Your task to perform on an android device: delete a single message in the gmail app Image 0: 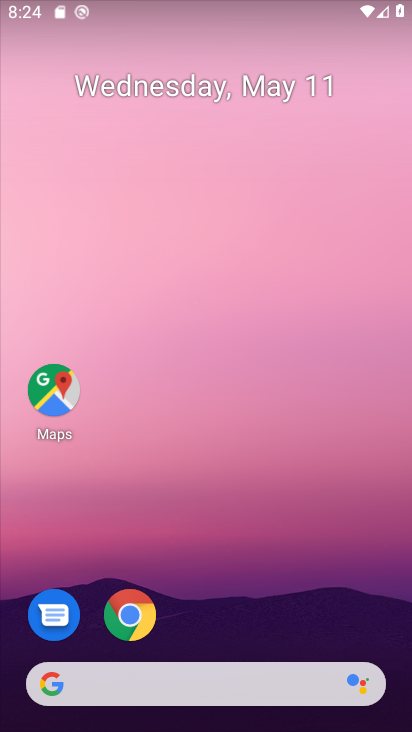
Step 0: drag from (316, 603) to (296, 181)
Your task to perform on an android device: delete a single message in the gmail app Image 1: 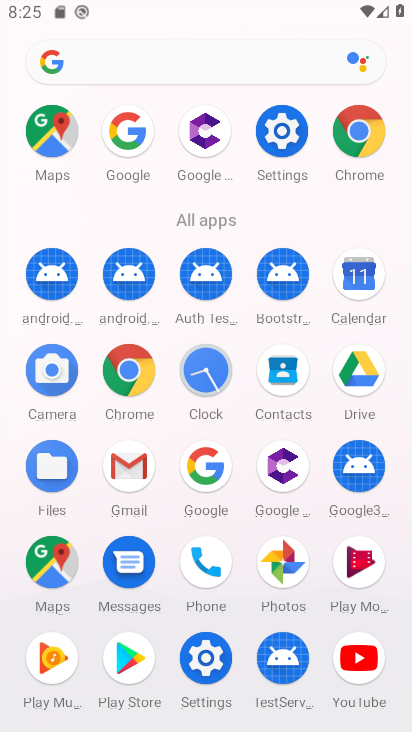
Step 1: click (147, 478)
Your task to perform on an android device: delete a single message in the gmail app Image 2: 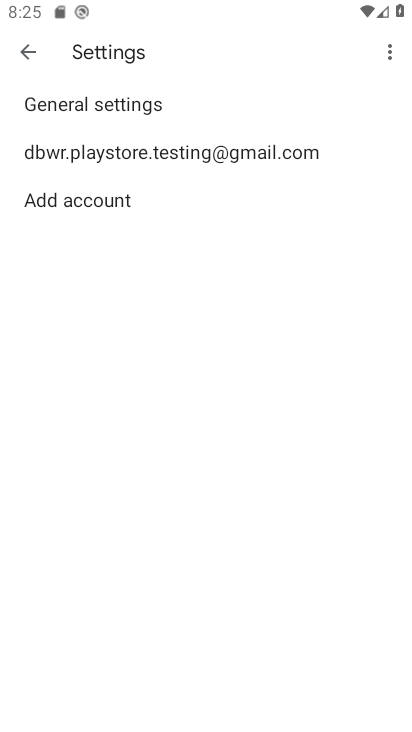
Step 2: click (81, 145)
Your task to perform on an android device: delete a single message in the gmail app Image 3: 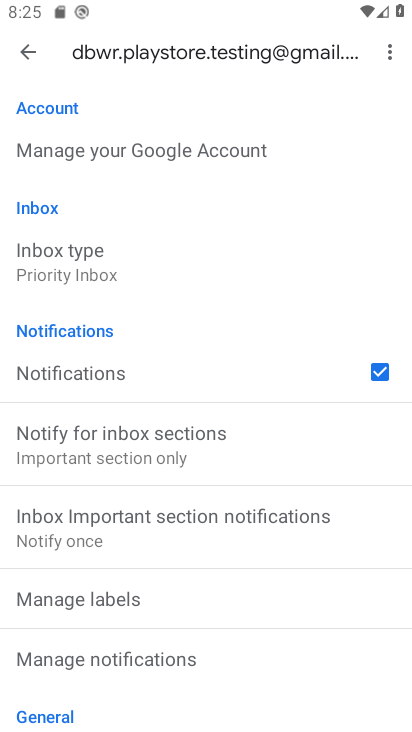
Step 3: click (18, 60)
Your task to perform on an android device: delete a single message in the gmail app Image 4: 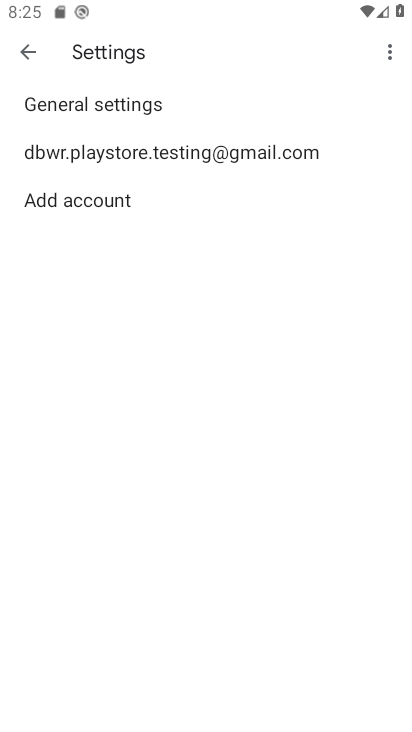
Step 4: click (13, 57)
Your task to perform on an android device: delete a single message in the gmail app Image 5: 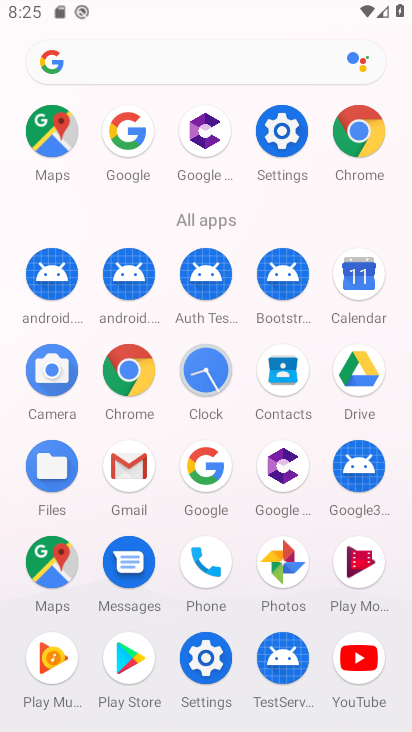
Step 5: click (127, 462)
Your task to perform on an android device: delete a single message in the gmail app Image 6: 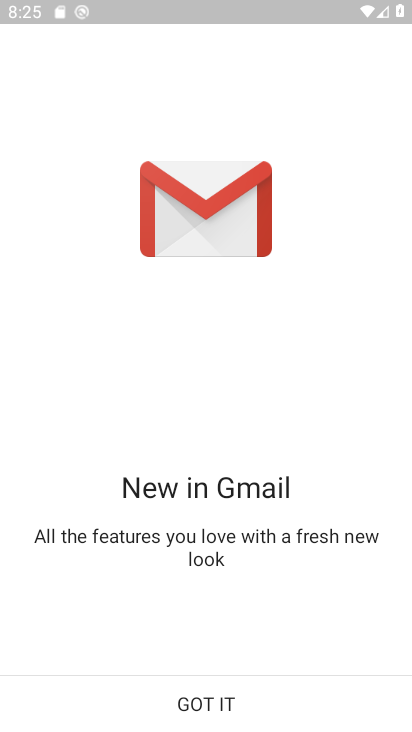
Step 6: click (191, 723)
Your task to perform on an android device: delete a single message in the gmail app Image 7: 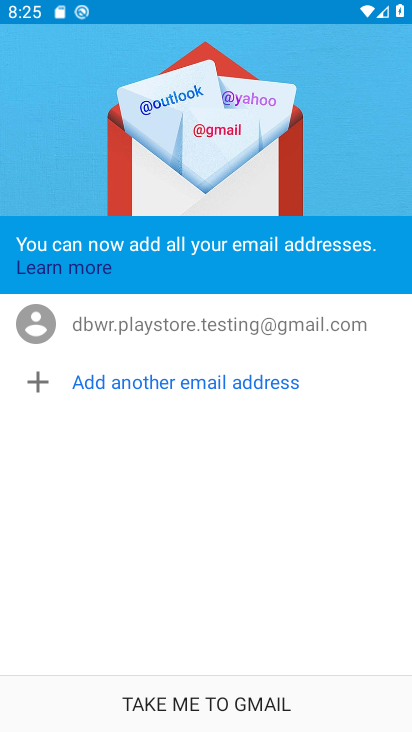
Step 7: click (209, 694)
Your task to perform on an android device: delete a single message in the gmail app Image 8: 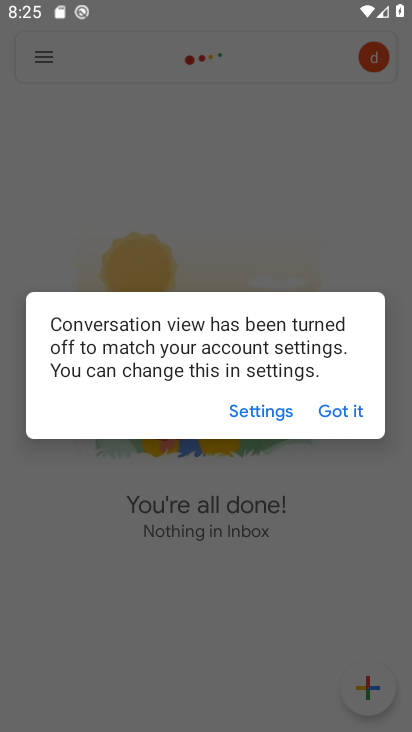
Step 8: click (330, 425)
Your task to perform on an android device: delete a single message in the gmail app Image 9: 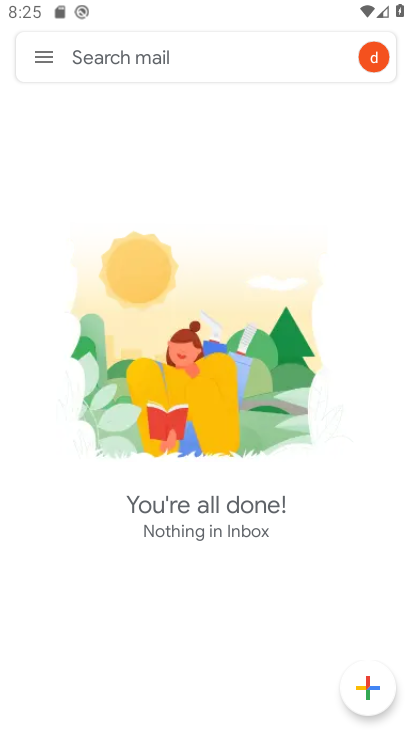
Step 9: task complete